Your task to perform on an android device: turn on wifi Image 0: 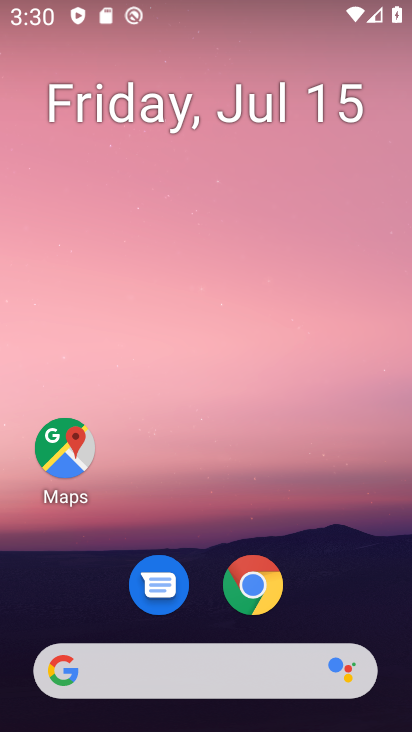
Step 0: drag from (211, 662) to (261, 2)
Your task to perform on an android device: turn on wifi Image 1: 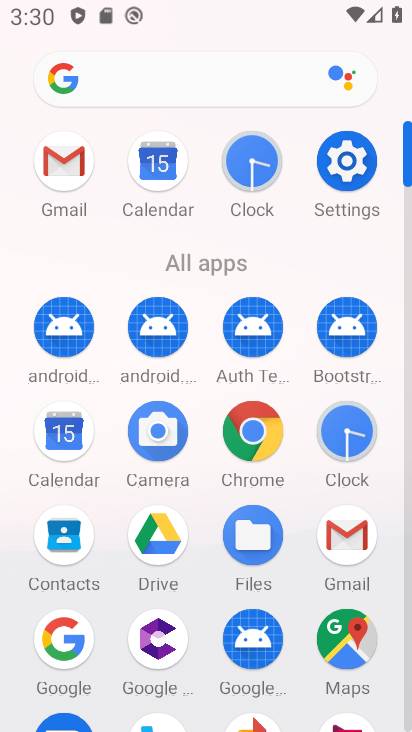
Step 1: click (350, 157)
Your task to perform on an android device: turn on wifi Image 2: 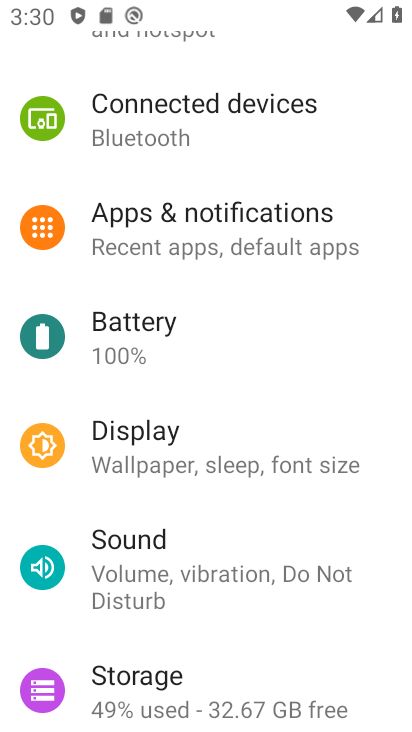
Step 2: drag from (176, 158) to (172, 622)
Your task to perform on an android device: turn on wifi Image 3: 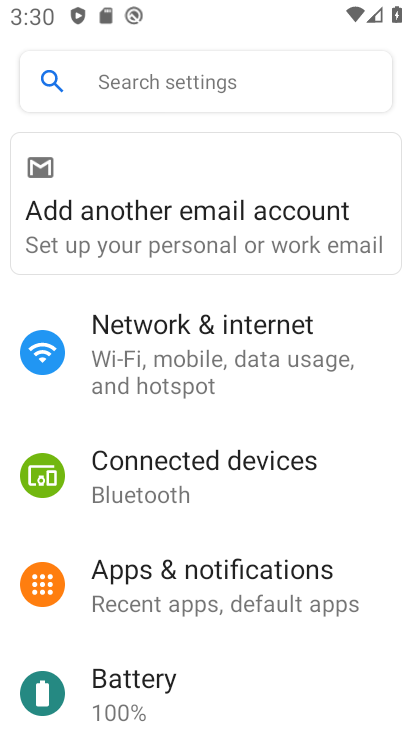
Step 3: click (163, 348)
Your task to perform on an android device: turn on wifi Image 4: 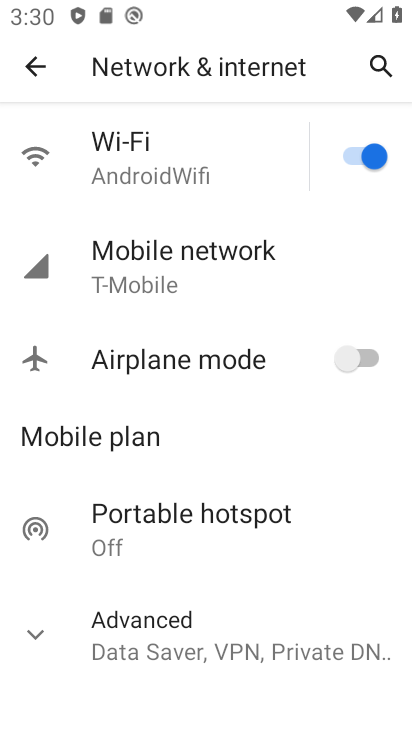
Step 4: task complete